Your task to perform on an android device: star an email in the gmail app Image 0: 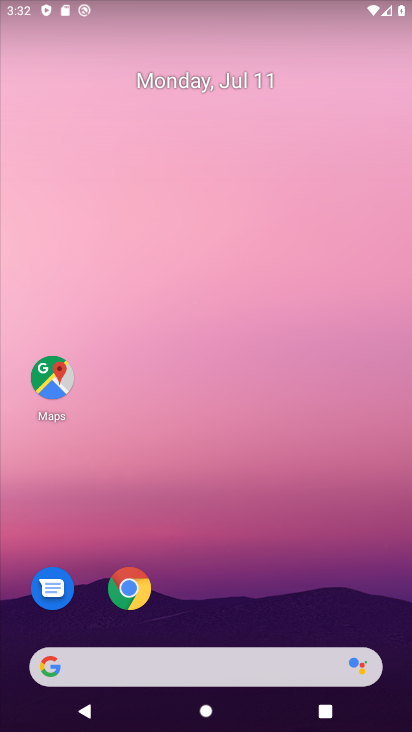
Step 0: drag from (349, 602) to (403, 76)
Your task to perform on an android device: star an email in the gmail app Image 1: 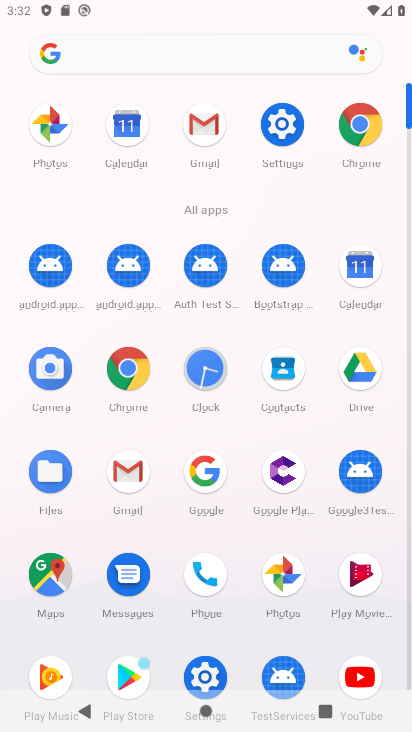
Step 1: click (130, 479)
Your task to perform on an android device: star an email in the gmail app Image 2: 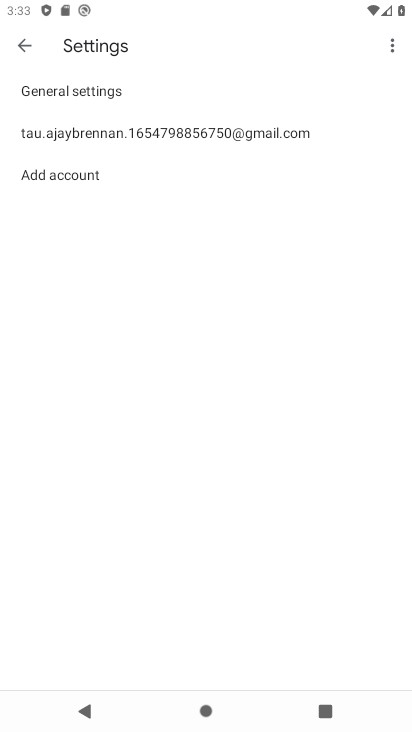
Step 2: press back button
Your task to perform on an android device: star an email in the gmail app Image 3: 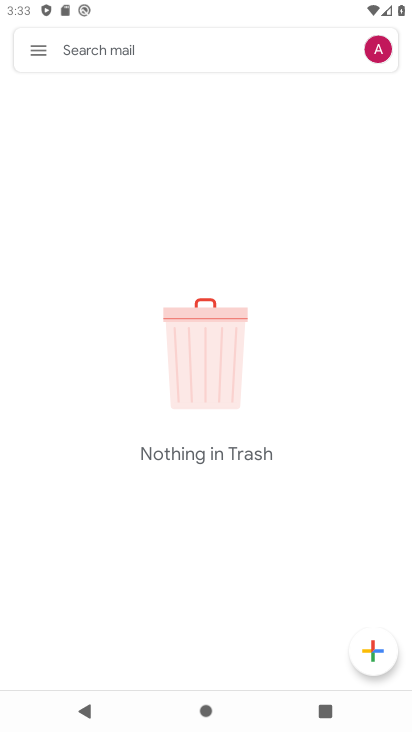
Step 3: click (35, 53)
Your task to perform on an android device: star an email in the gmail app Image 4: 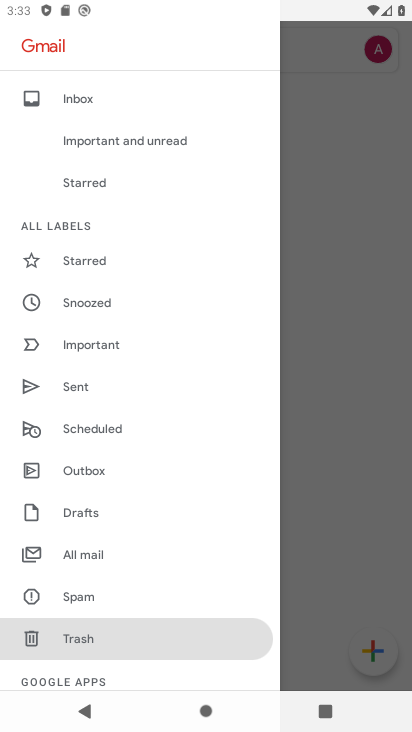
Step 4: drag from (176, 242) to (162, 351)
Your task to perform on an android device: star an email in the gmail app Image 5: 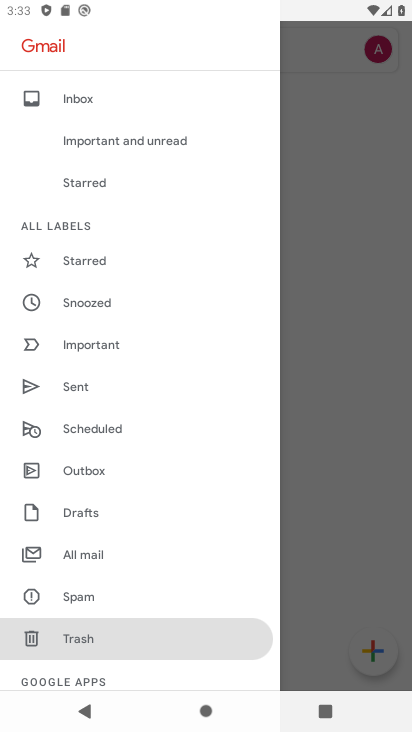
Step 5: click (116, 101)
Your task to perform on an android device: star an email in the gmail app Image 6: 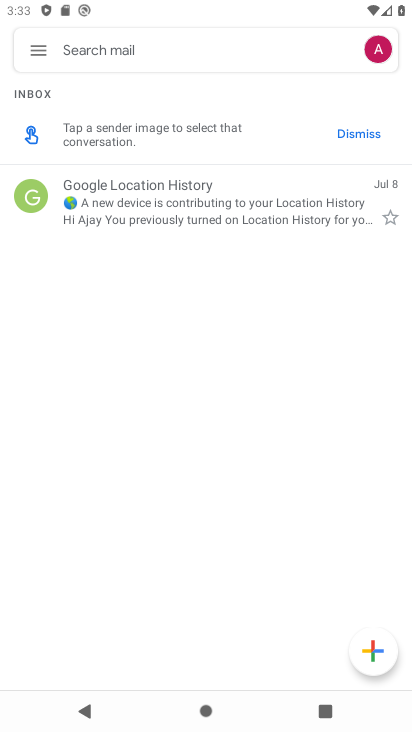
Step 6: click (388, 222)
Your task to perform on an android device: star an email in the gmail app Image 7: 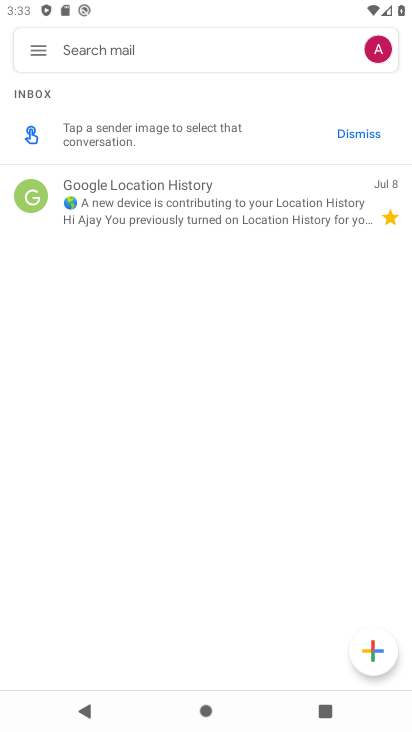
Step 7: task complete